Your task to perform on an android device: toggle pop-ups in chrome Image 0: 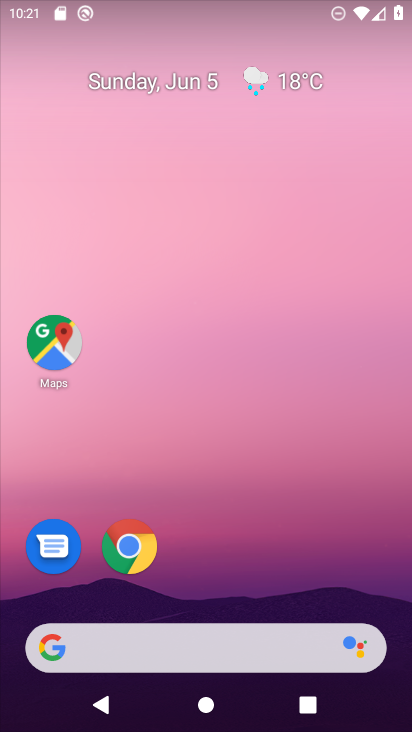
Step 0: drag from (204, 604) to (238, 115)
Your task to perform on an android device: toggle pop-ups in chrome Image 1: 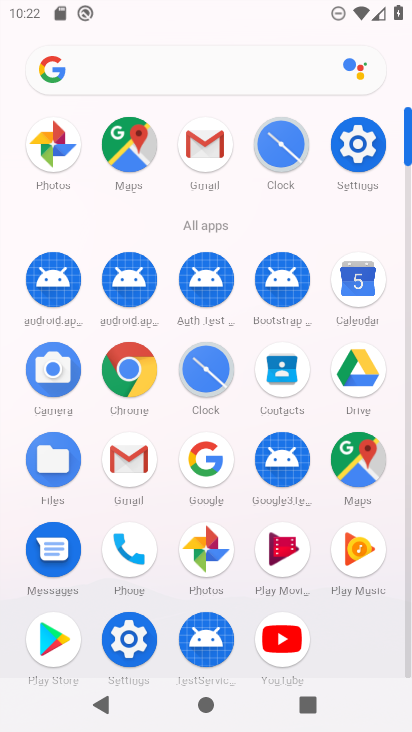
Step 1: click (134, 354)
Your task to perform on an android device: toggle pop-ups in chrome Image 2: 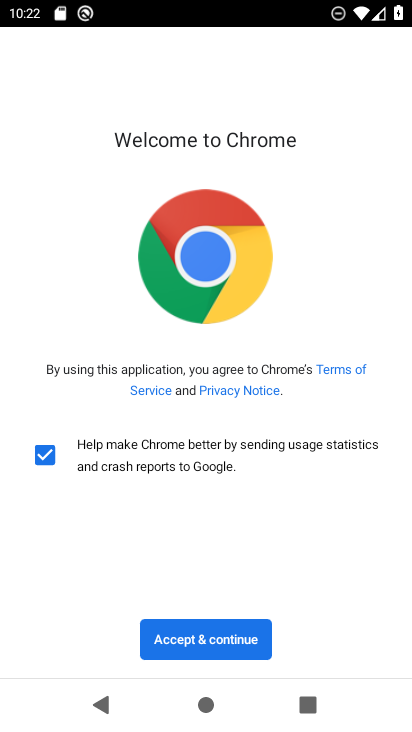
Step 2: click (196, 642)
Your task to perform on an android device: toggle pop-ups in chrome Image 3: 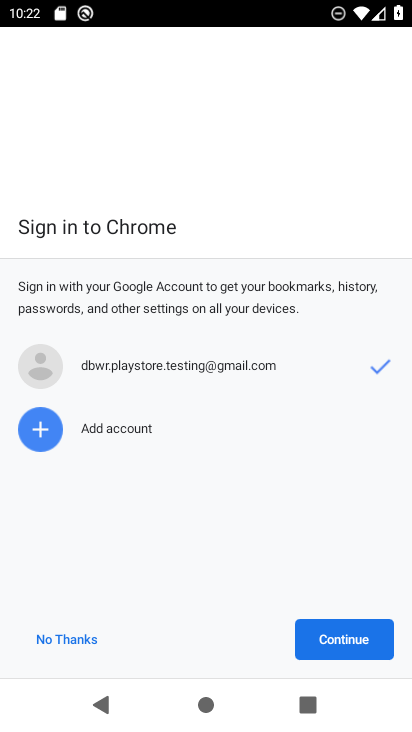
Step 3: click (333, 640)
Your task to perform on an android device: toggle pop-ups in chrome Image 4: 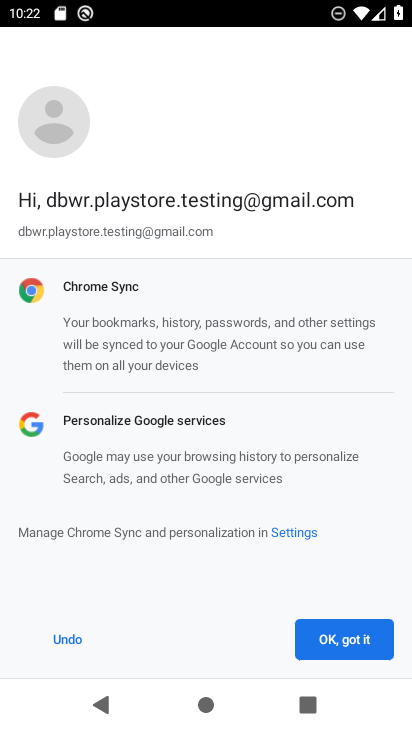
Step 4: click (329, 639)
Your task to perform on an android device: toggle pop-ups in chrome Image 5: 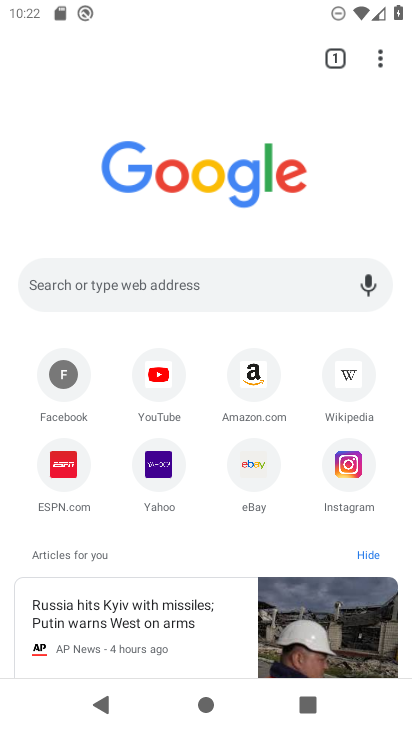
Step 5: drag from (187, 575) to (239, 1)
Your task to perform on an android device: toggle pop-ups in chrome Image 6: 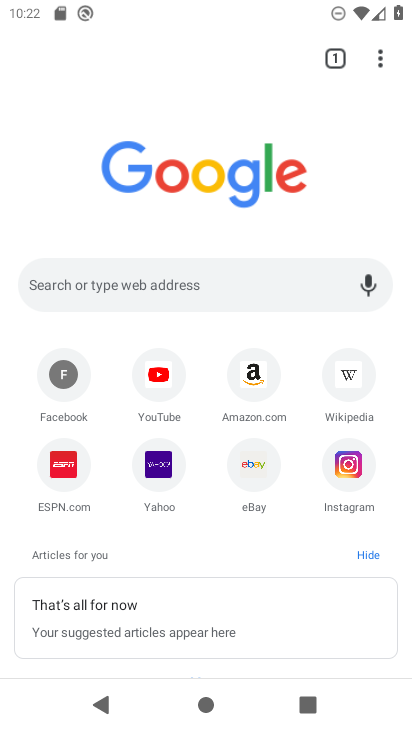
Step 6: drag from (194, 161) to (234, 437)
Your task to perform on an android device: toggle pop-ups in chrome Image 7: 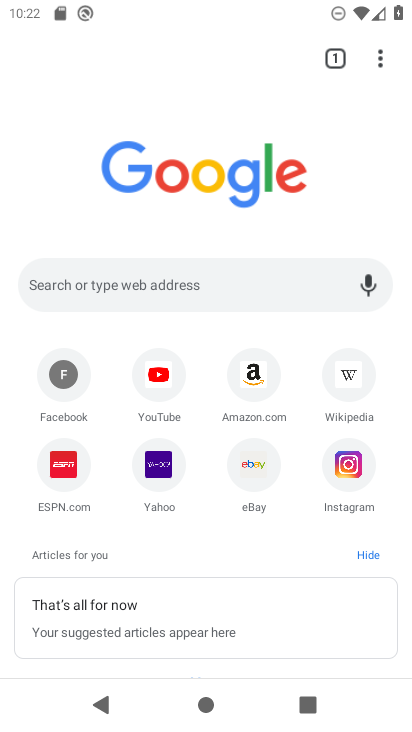
Step 7: click (381, 57)
Your task to perform on an android device: toggle pop-ups in chrome Image 8: 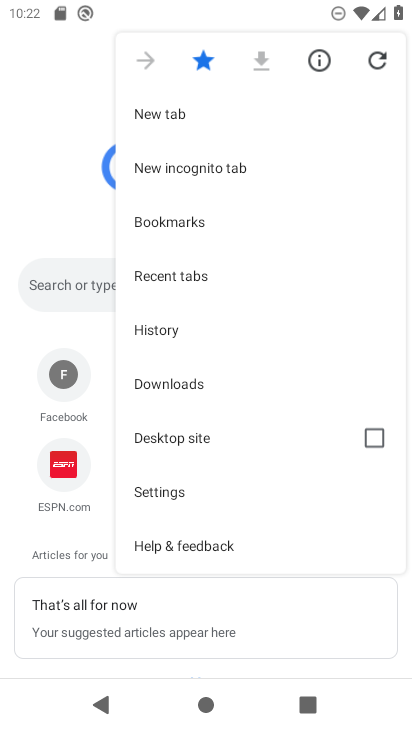
Step 8: click (198, 488)
Your task to perform on an android device: toggle pop-ups in chrome Image 9: 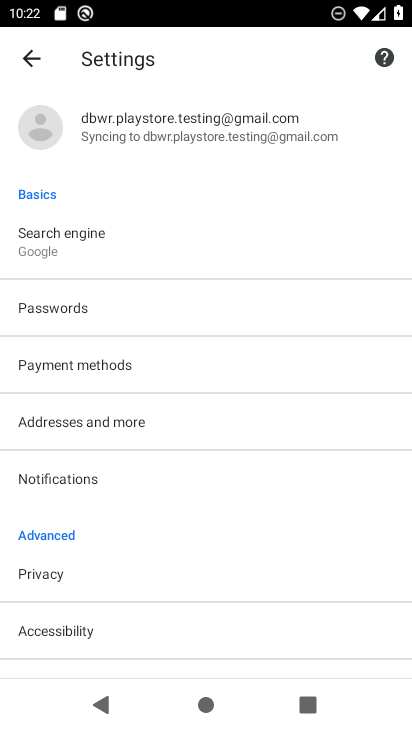
Step 9: drag from (30, 611) to (156, 139)
Your task to perform on an android device: toggle pop-ups in chrome Image 10: 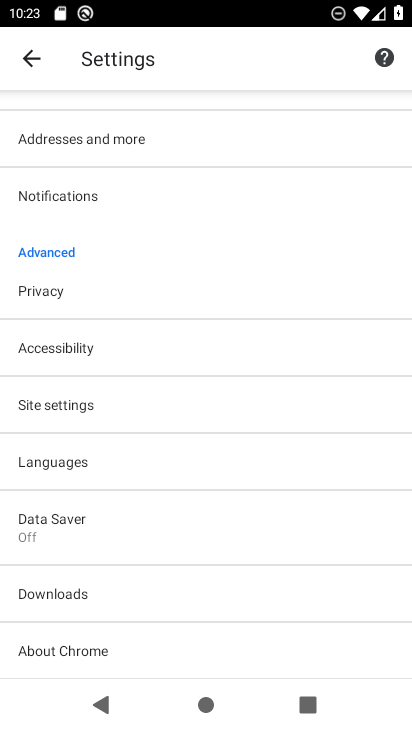
Step 10: click (80, 397)
Your task to perform on an android device: toggle pop-ups in chrome Image 11: 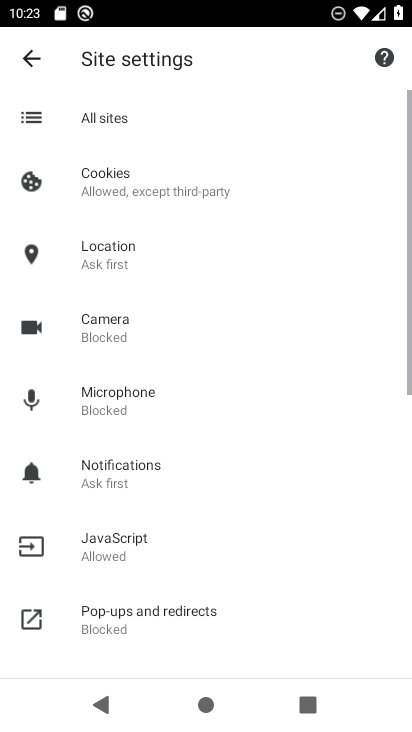
Step 11: drag from (247, 545) to (326, 0)
Your task to perform on an android device: toggle pop-ups in chrome Image 12: 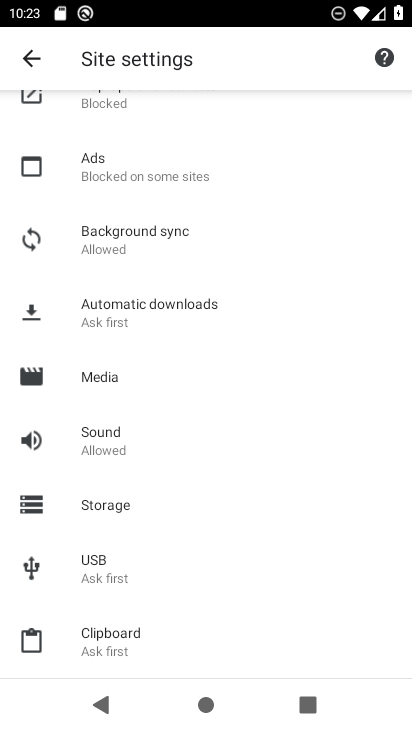
Step 12: drag from (205, 504) to (279, 130)
Your task to perform on an android device: toggle pop-ups in chrome Image 13: 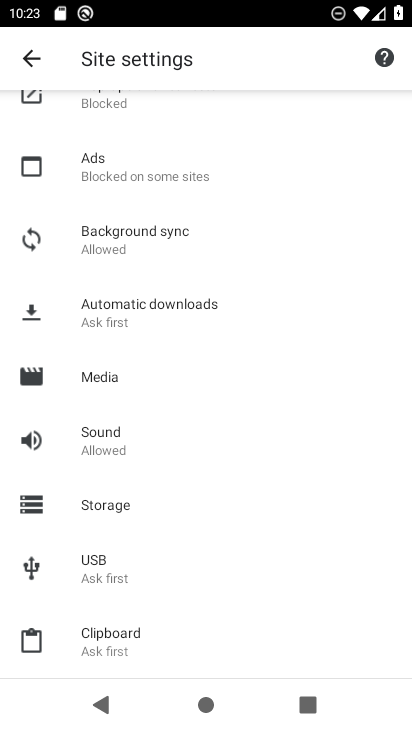
Step 13: drag from (276, 172) to (243, 613)
Your task to perform on an android device: toggle pop-ups in chrome Image 14: 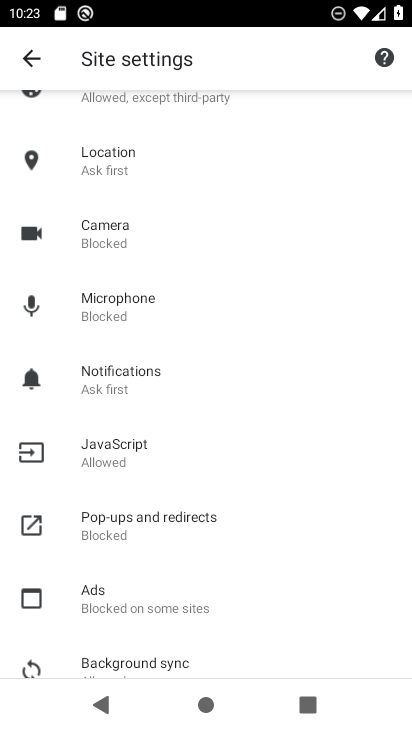
Step 14: click (96, 530)
Your task to perform on an android device: toggle pop-ups in chrome Image 15: 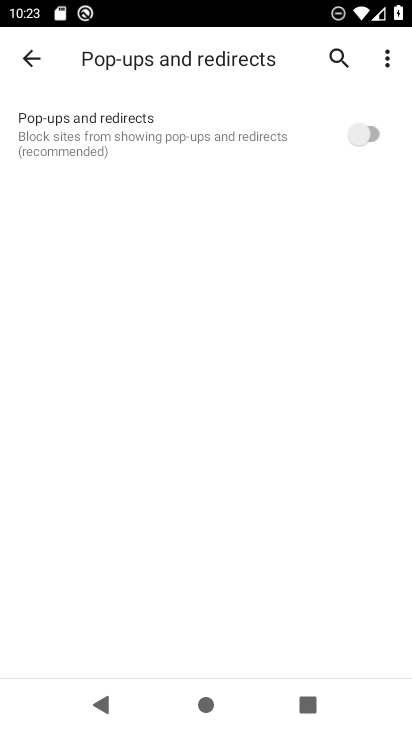
Step 15: drag from (278, 539) to (343, 214)
Your task to perform on an android device: toggle pop-ups in chrome Image 16: 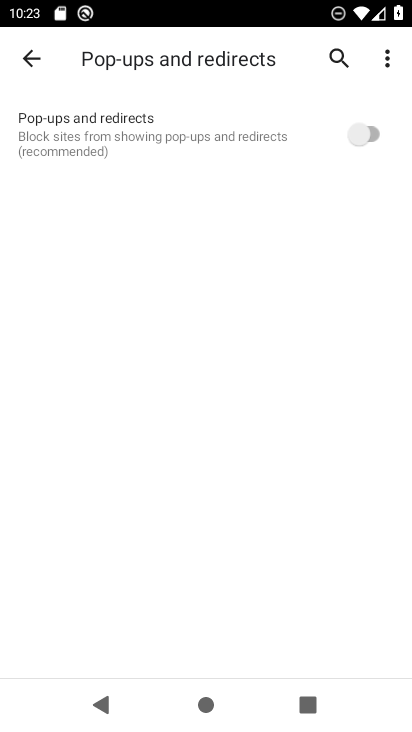
Step 16: click (339, 125)
Your task to perform on an android device: toggle pop-ups in chrome Image 17: 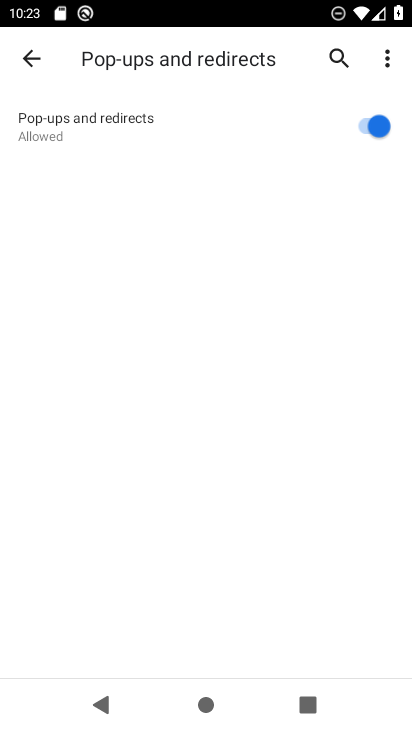
Step 17: task complete